Your task to perform on an android device: turn on showing notifications on the lock screen Image 0: 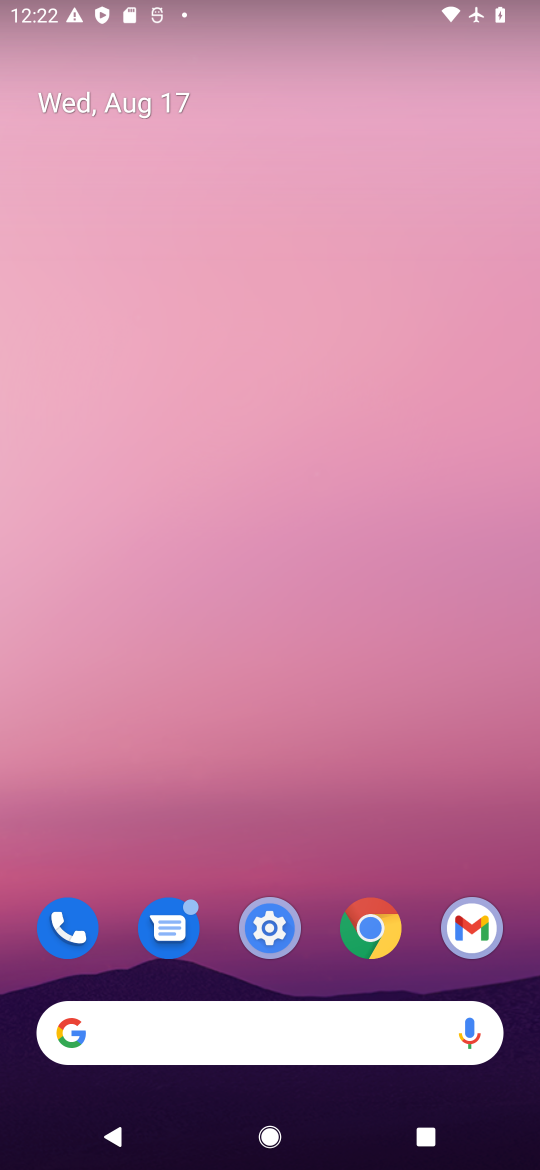
Step 0: click (280, 905)
Your task to perform on an android device: turn on showing notifications on the lock screen Image 1: 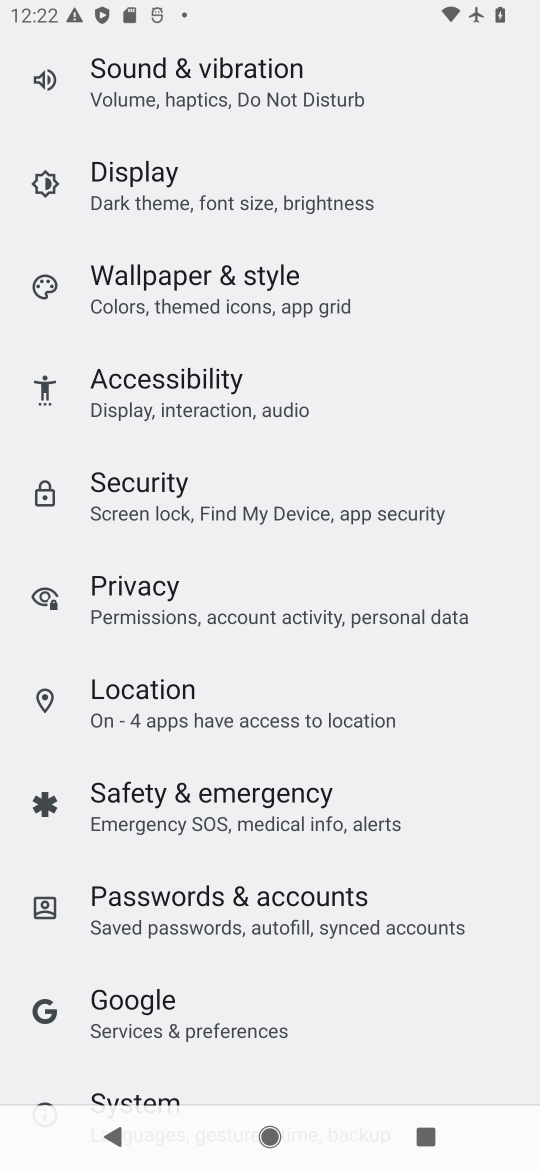
Step 1: drag from (267, 364) to (269, 923)
Your task to perform on an android device: turn on showing notifications on the lock screen Image 2: 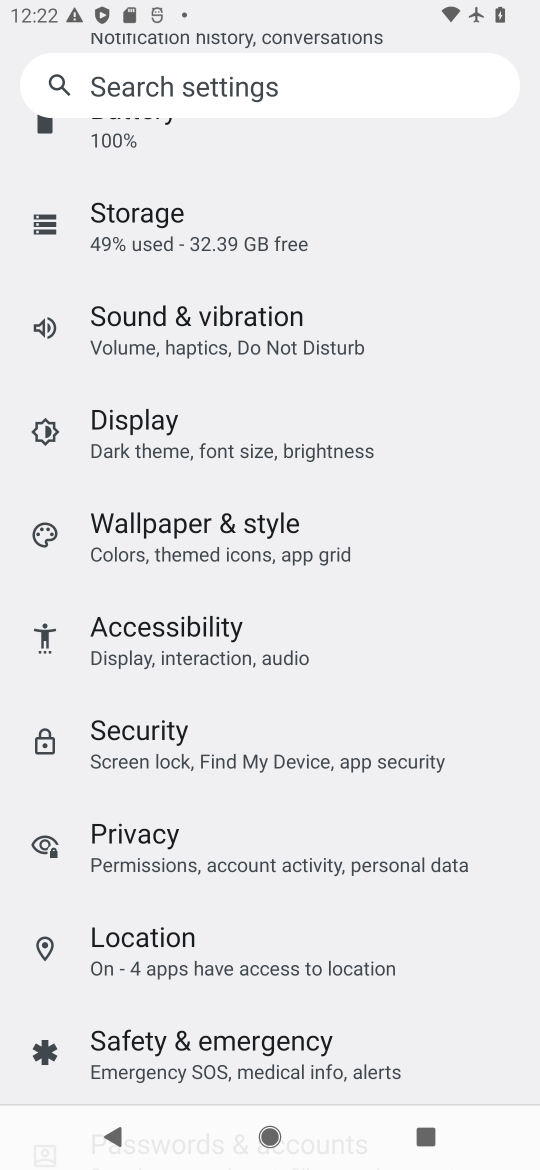
Step 2: drag from (290, 364) to (290, 803)
Your task to perform on an android device: turn on showing notifications on the lock screen Image 3: 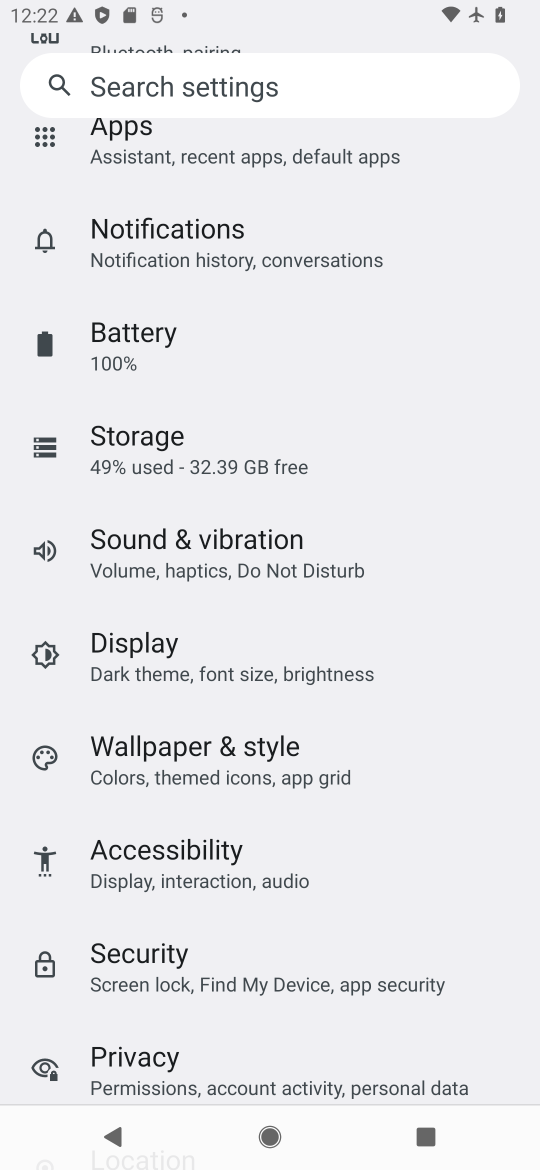
Step 3: click (290, 261)
Your task to perform on an android device: turn on showing notifications on the lock screen Image 4: 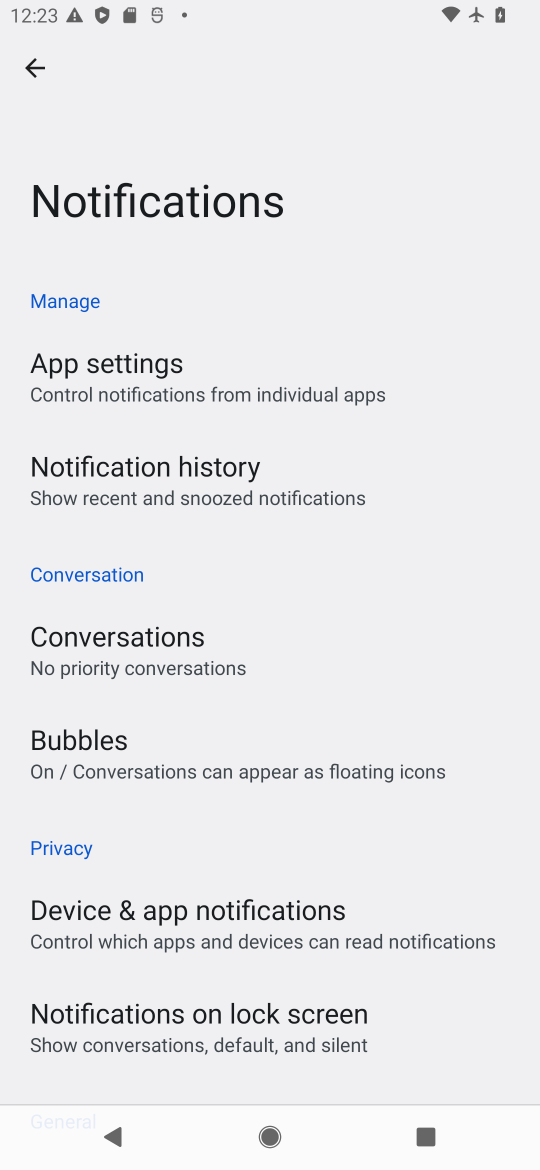
Step 4: drag from (299, 831) to (299, 381)
Your task to perform on an android device: turn on showing notifications on the lock screen Image 5: 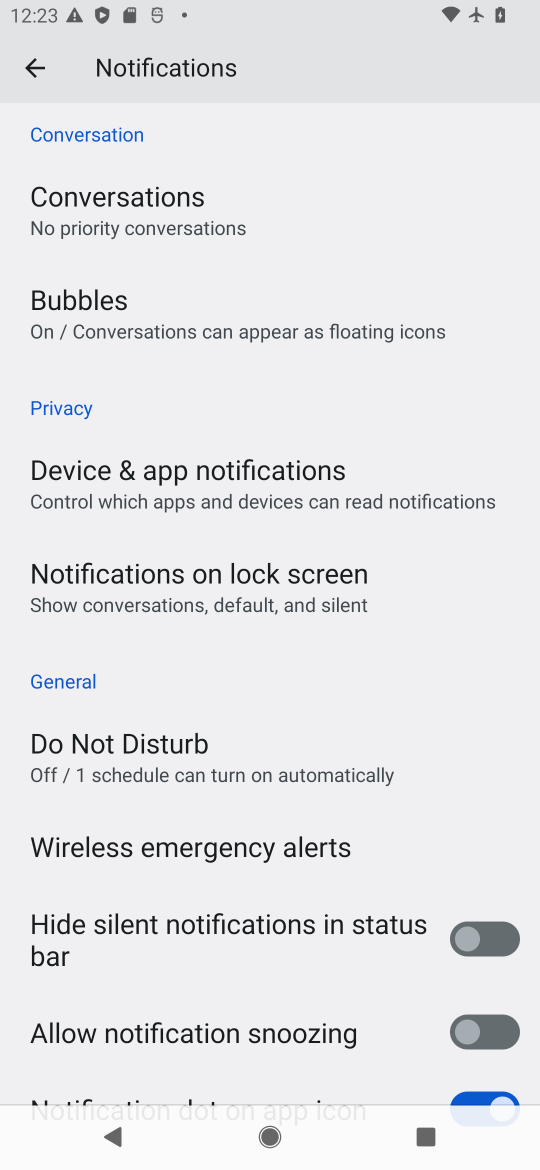
Step 5: click (250, 618)
Your task to perform on an android device: turn on showing notifications on the lock screen Image 6: 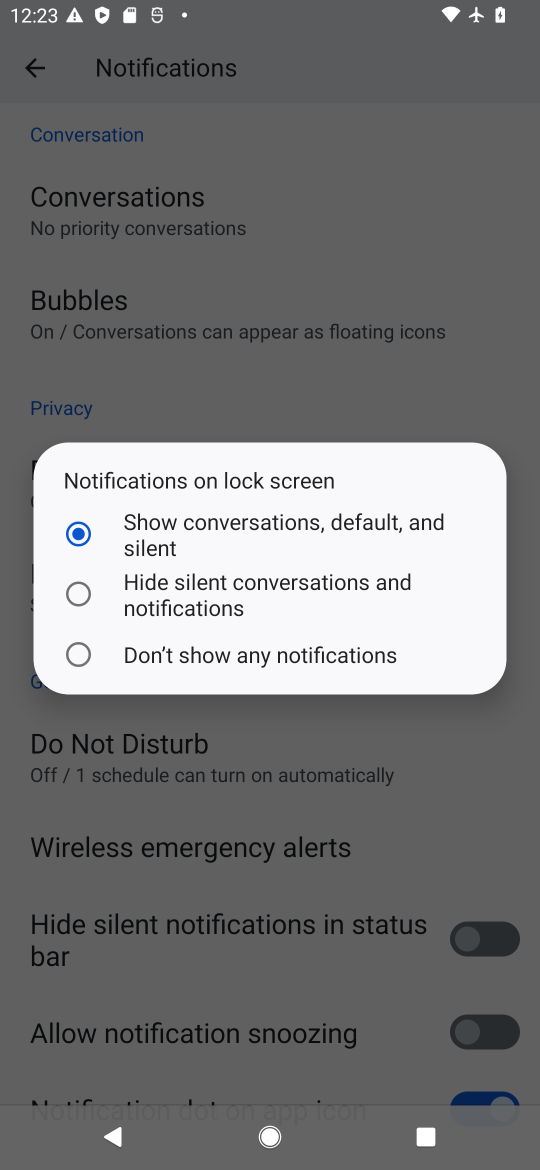
Step 6: task complete